Your task to perform on an android device: open sync settings in chrome Image 0: 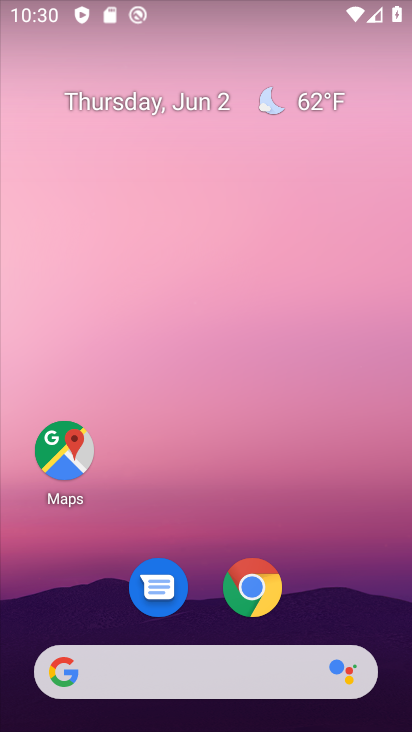
Step 0: drag from (262, 550) to (275, 80)
Your task to perform on an android device: open sync settings in chrome Image 1: 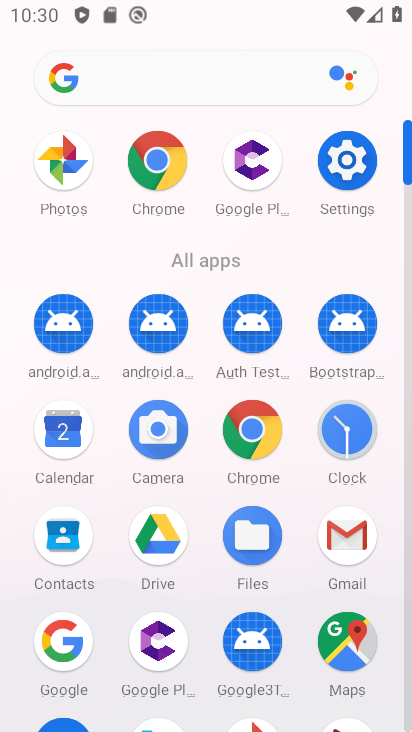
Step 1: click (279, 452)
Your task to perform on an android device: open sync settings in chrome Image 2: 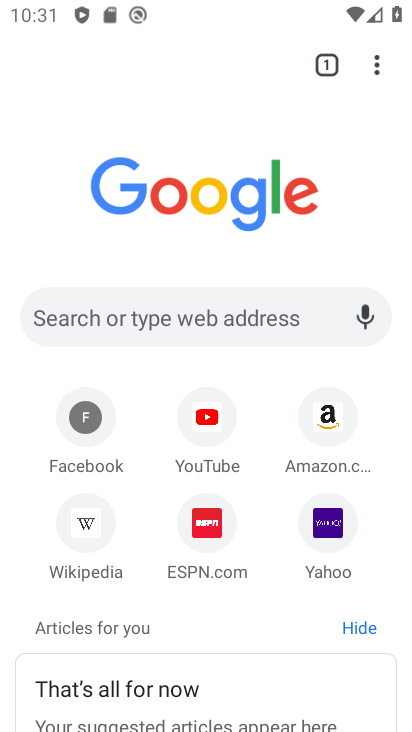
Step 2: drag from (376, 77) to (175, 532)
Your task to perform on an android device: open sync settings in chrome Image 3: 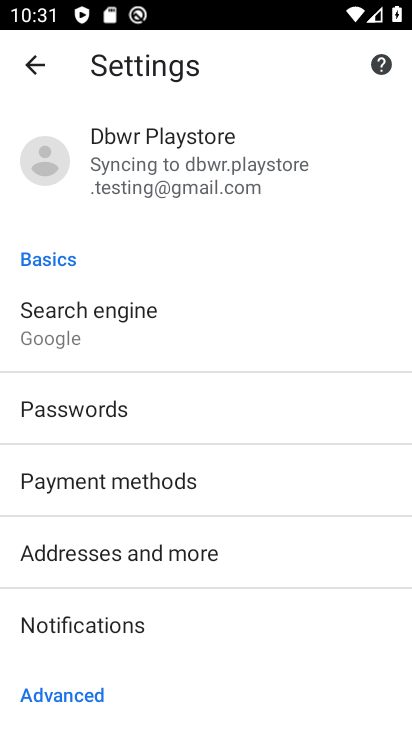
Step 3: drag from (281, 610) to (315, 311)
Your task to perform on an android device: open sync settings in chrome Image 4: 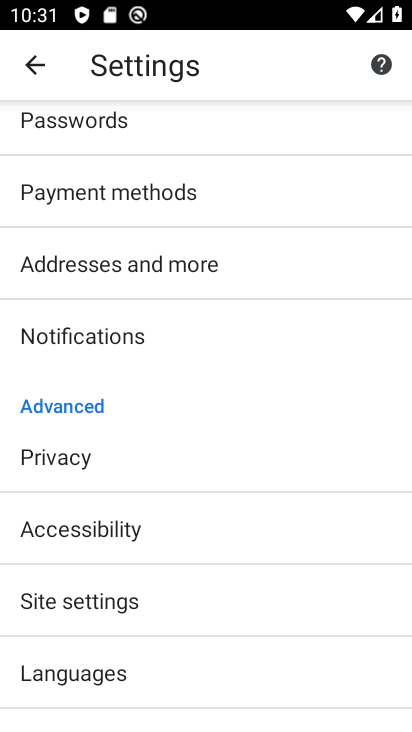
Step 4: click (184, 593)
Your task to perform on an android device: open sync settings in chrome Image 5: 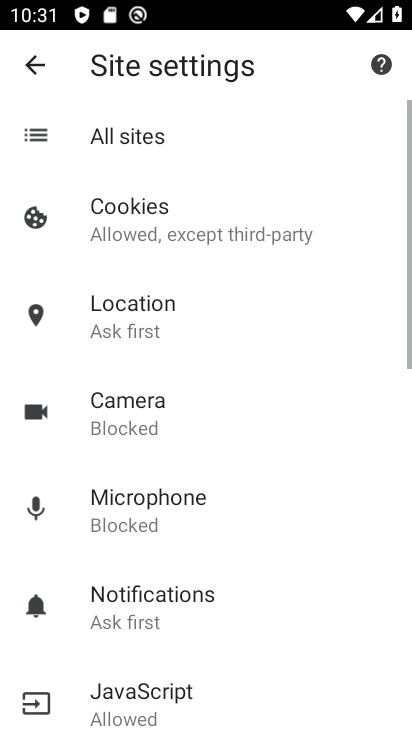
Step 5: drag from (252, 585) to (284, 156)
Your task to perform on an android device: open sync settings in chrome Image 6: 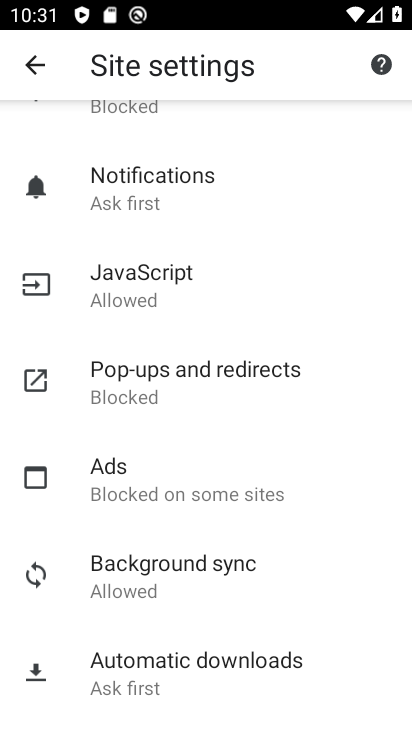
Step 6: click (235, 577)
Your task to perform on an android device: open sync settings in chrome Image 7: 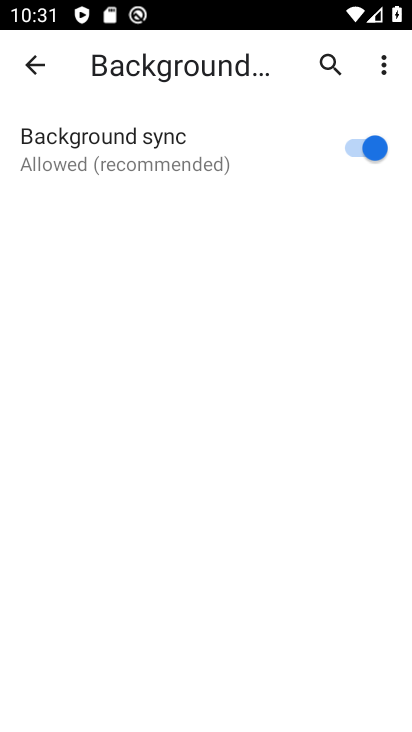
Step 7: task complete